Your task to perform on an android device: open app "HBO Max: Stream TV & Movies" Image 0: 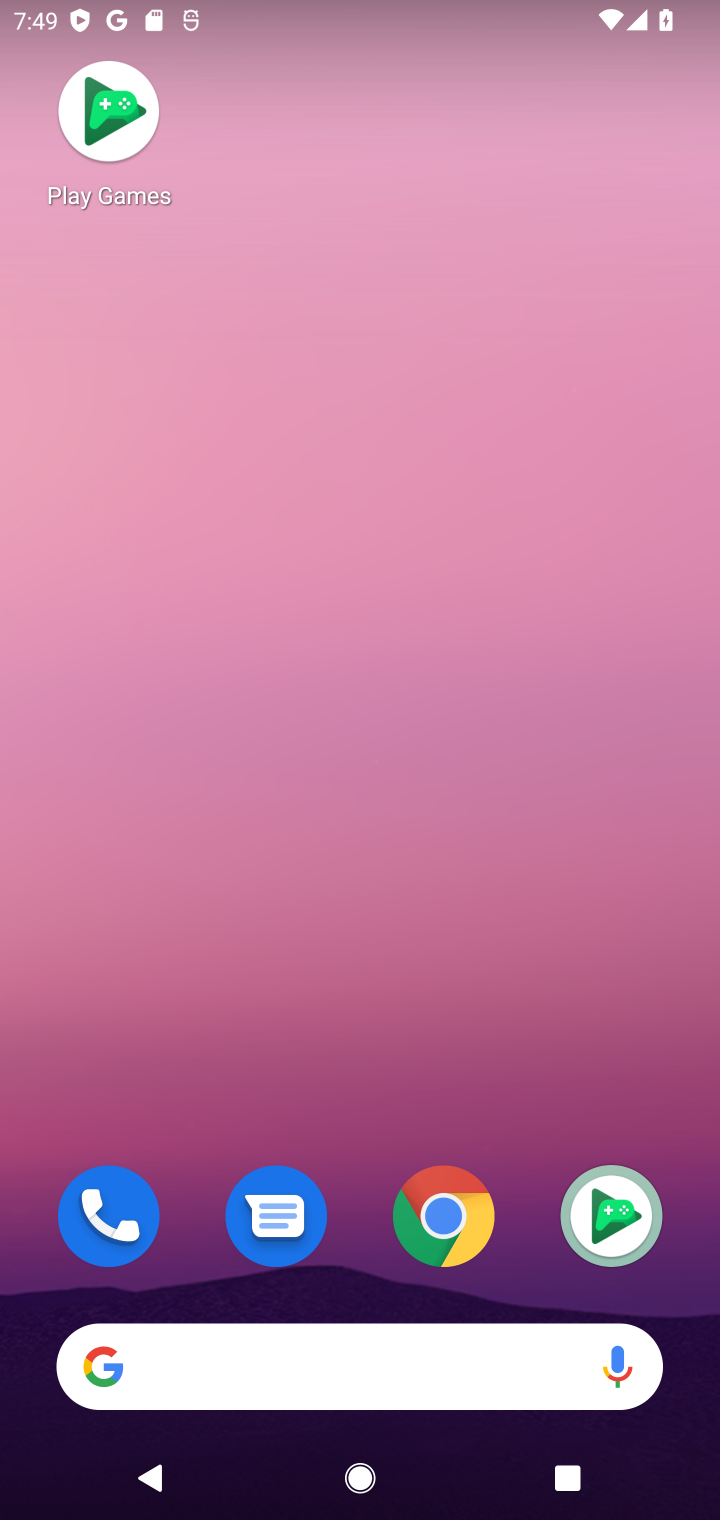
Step 0: drag from (416, 1235) to (497, 239)
Your task to perform on an android device: open app "HBO Max: Stream TV & Movies" Image 1: 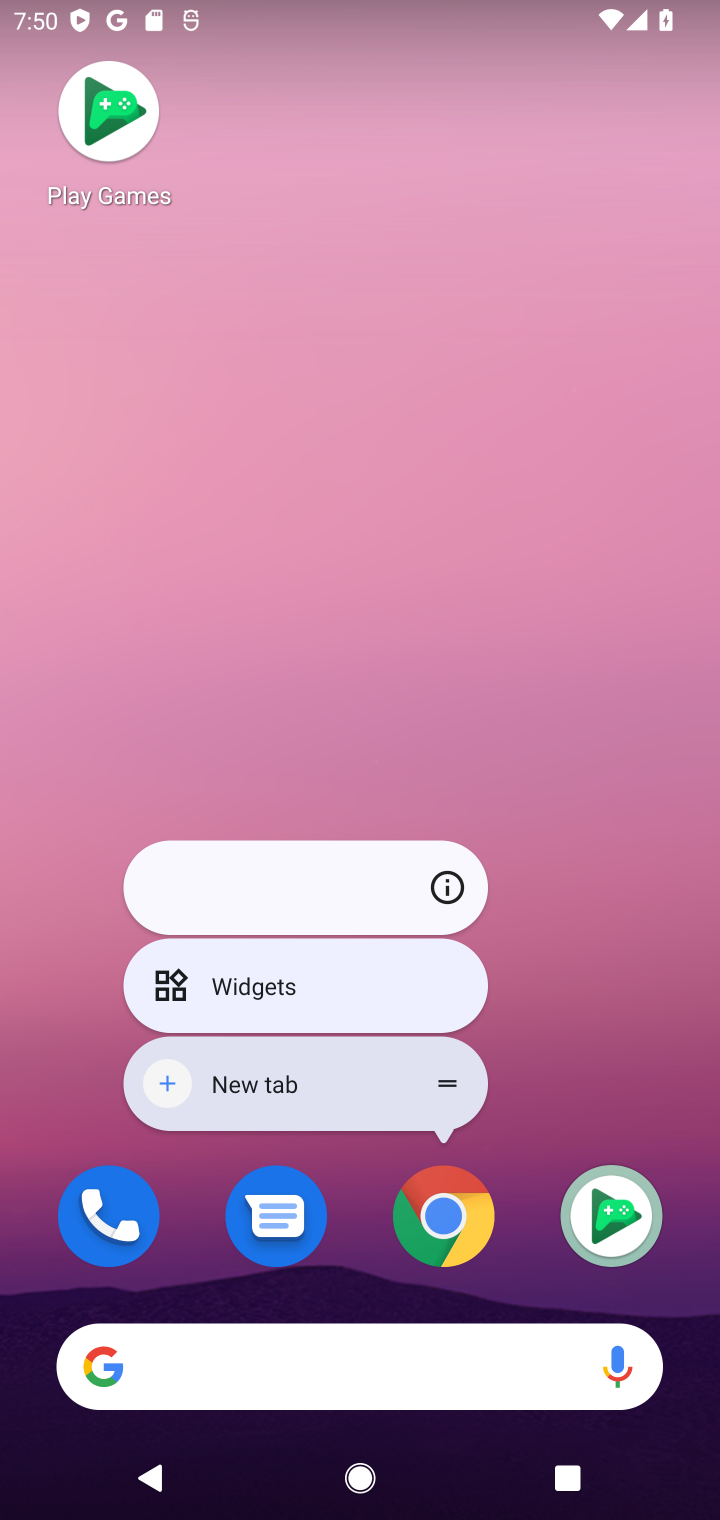
Step 1: click (411, 1286)
Your task to perform on an android device: open app "HBO Max: Stream TV & Movies" Image 2: 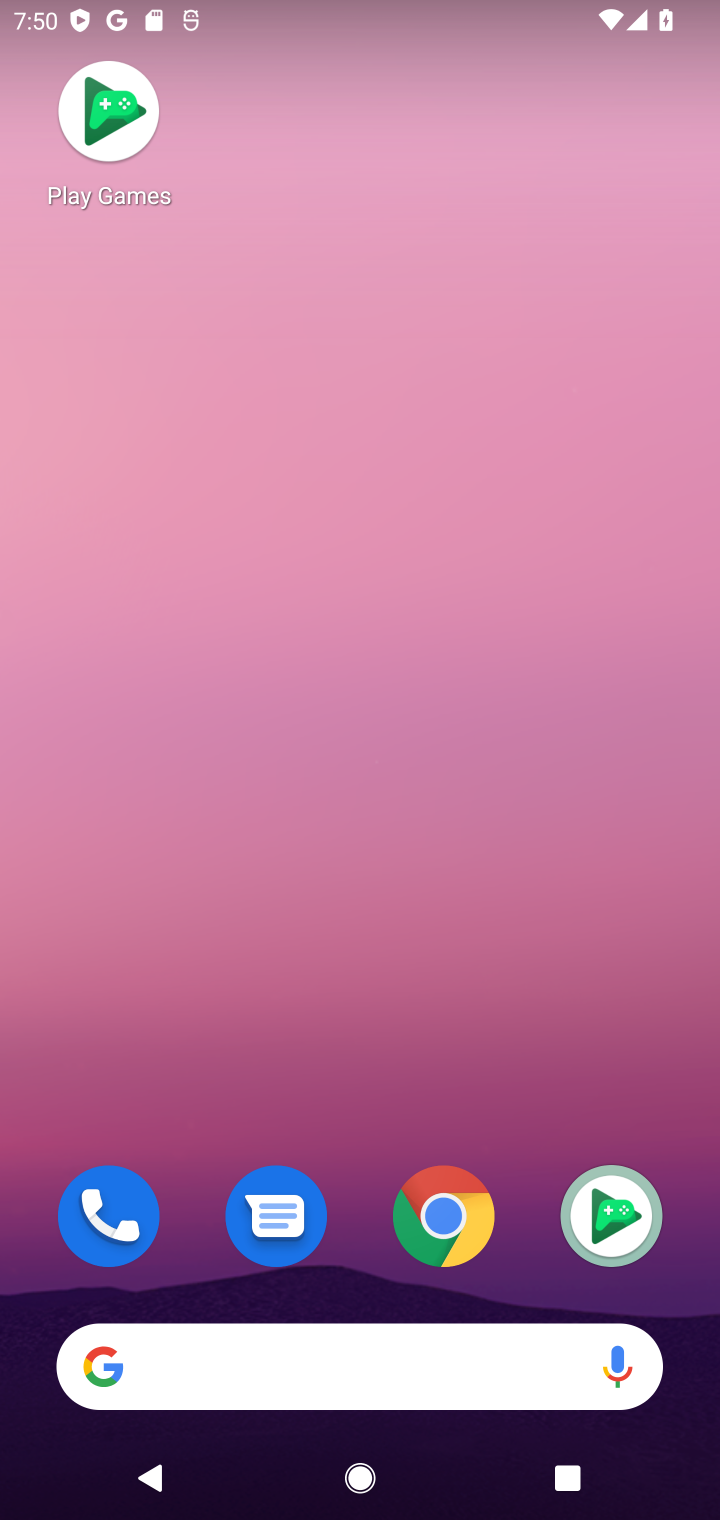
Step 2: drag from (270, 1177) to (164, 38)
Your task to perform on an android device: open app "HBO Max: Stream TV & Movies" Image 3: 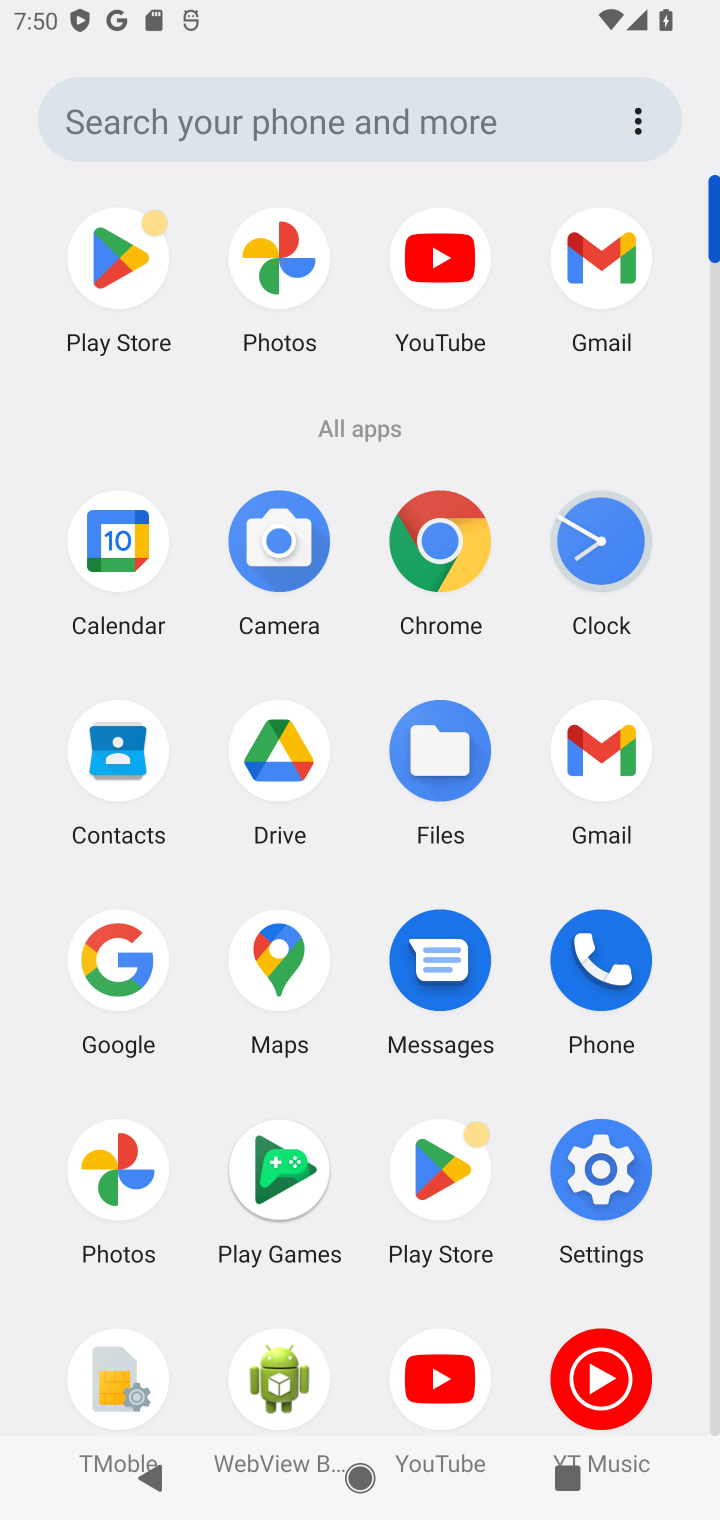
Step 3: click (134, 267)
Your task to perform on an android device: open app "HBO Max: Stream TV & Movies" Image 4: 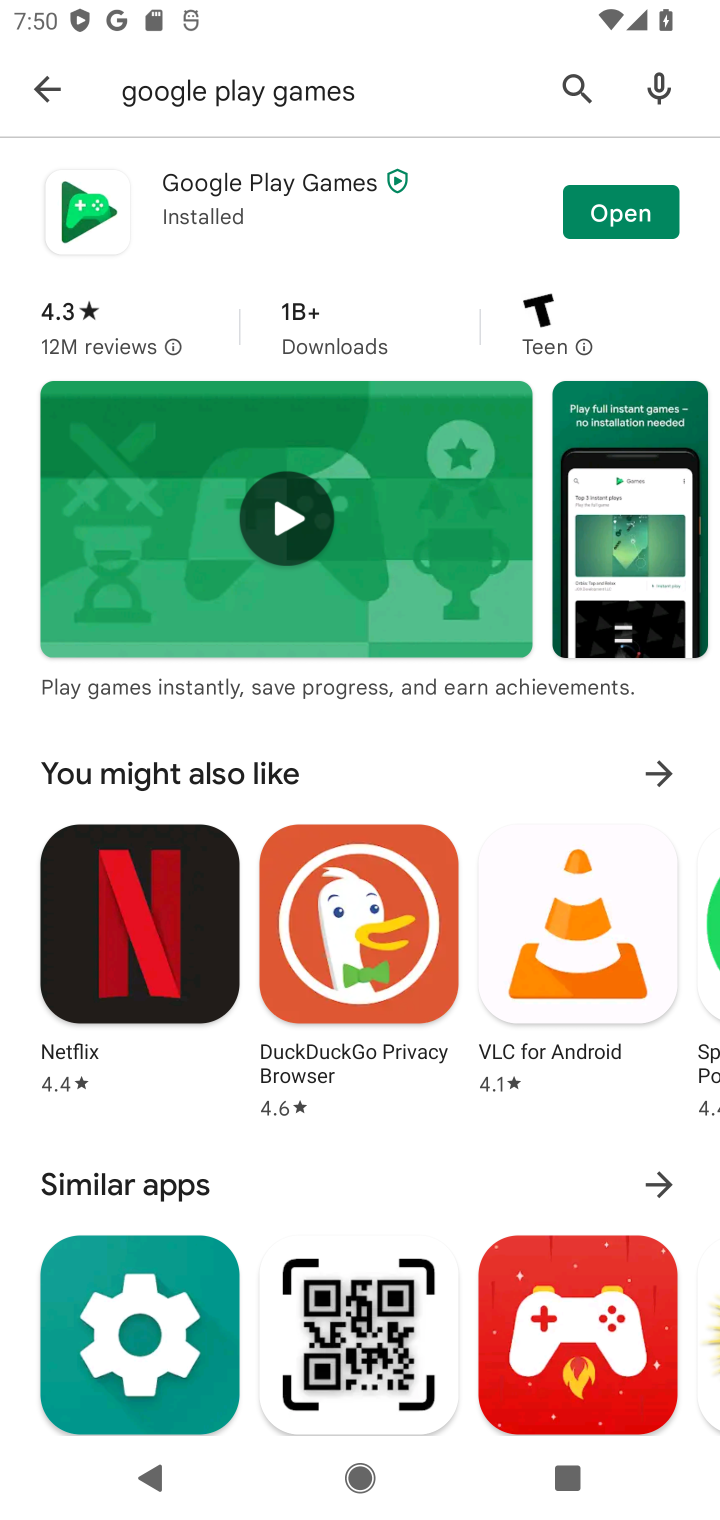
Step 4: click (584, 82)
Your task to perform on an android device: open app "HBO Max: Stream TV & Movies" Image 5: 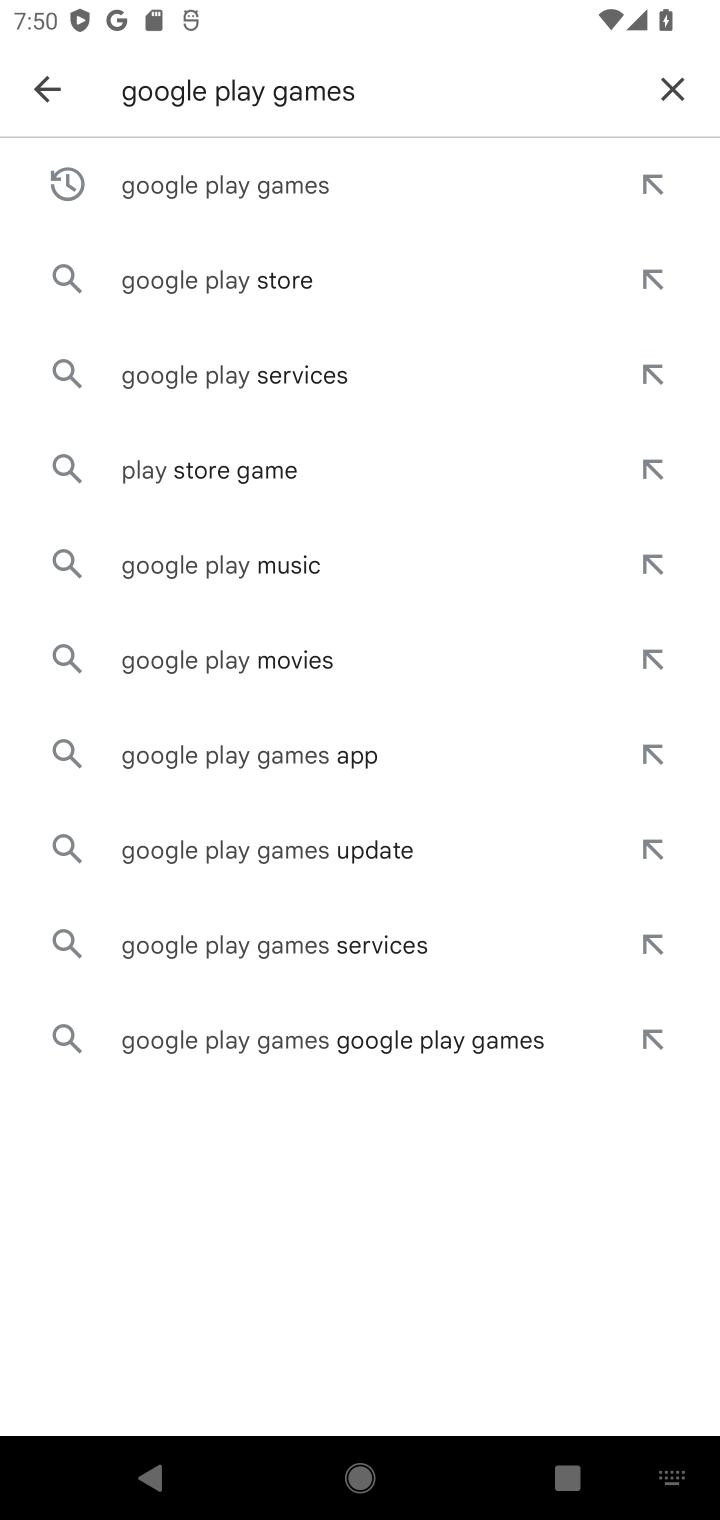
Step 5: click (680, 85)
Your task to perform on an android device: open app "HBO Max: Stream TV & Movies" Image 6: 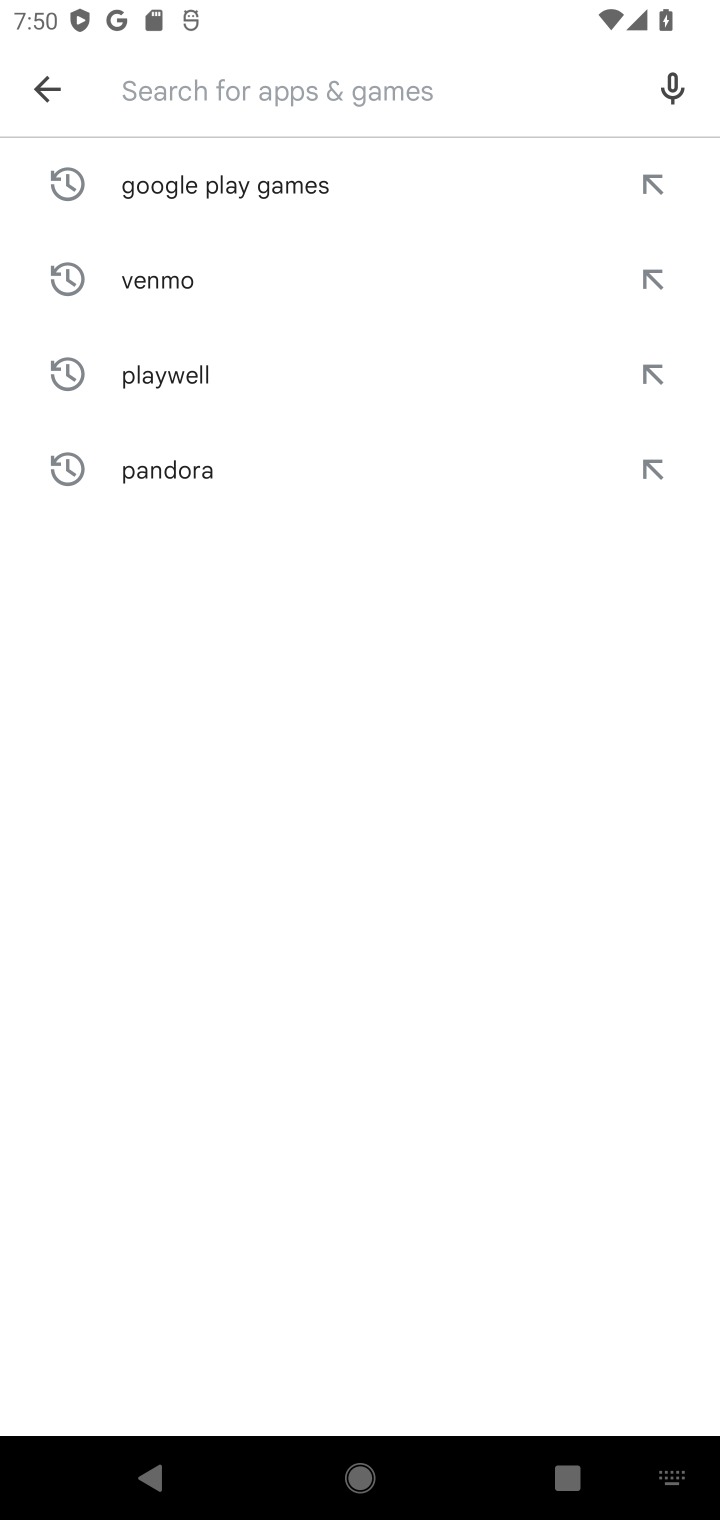
Step 6: click (208, 77)
Your task to perform on an android device: open app "HBO Max: Stream TV & Movies" Image 7: 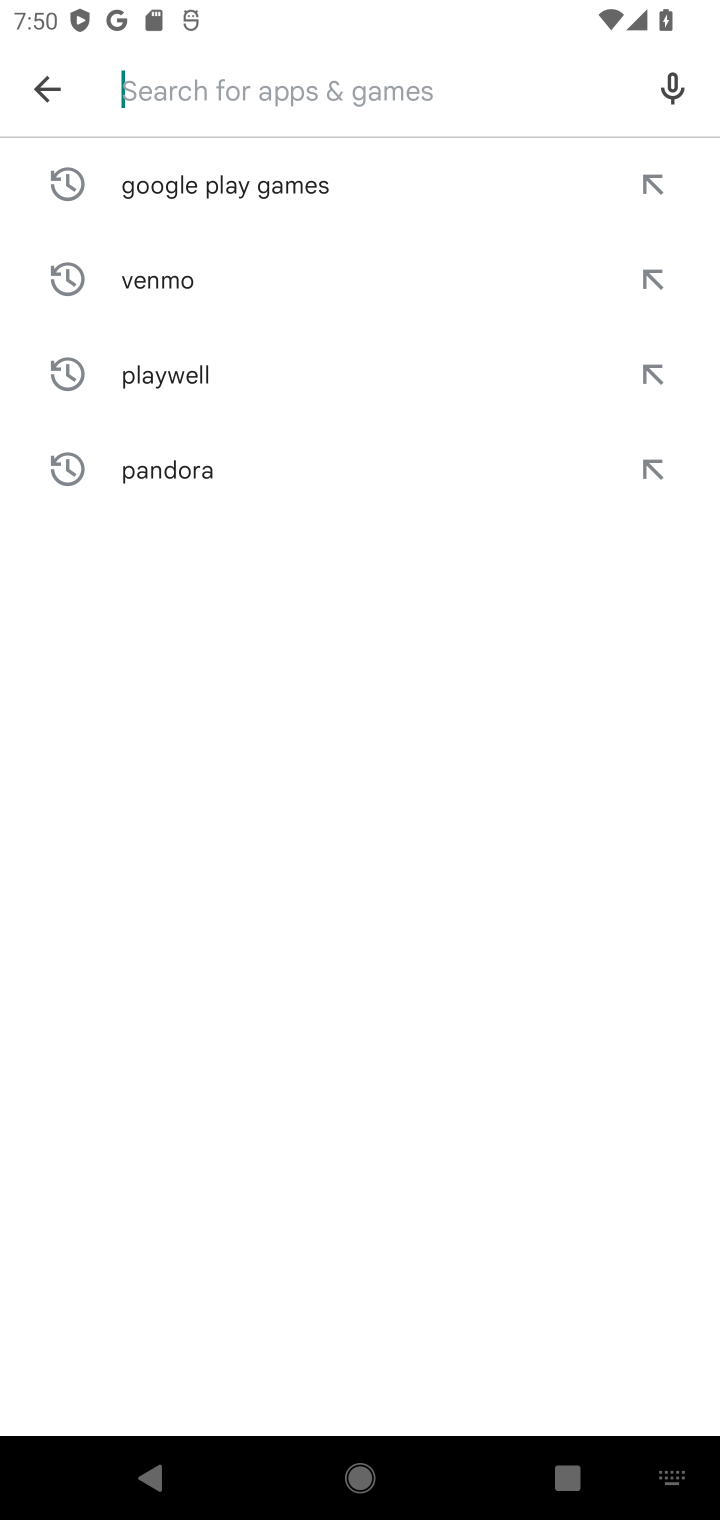
Step 7: type "hbo"
Your task to perform on an android device: open app "HBO Max: Stream TV & Movies" Image 8: 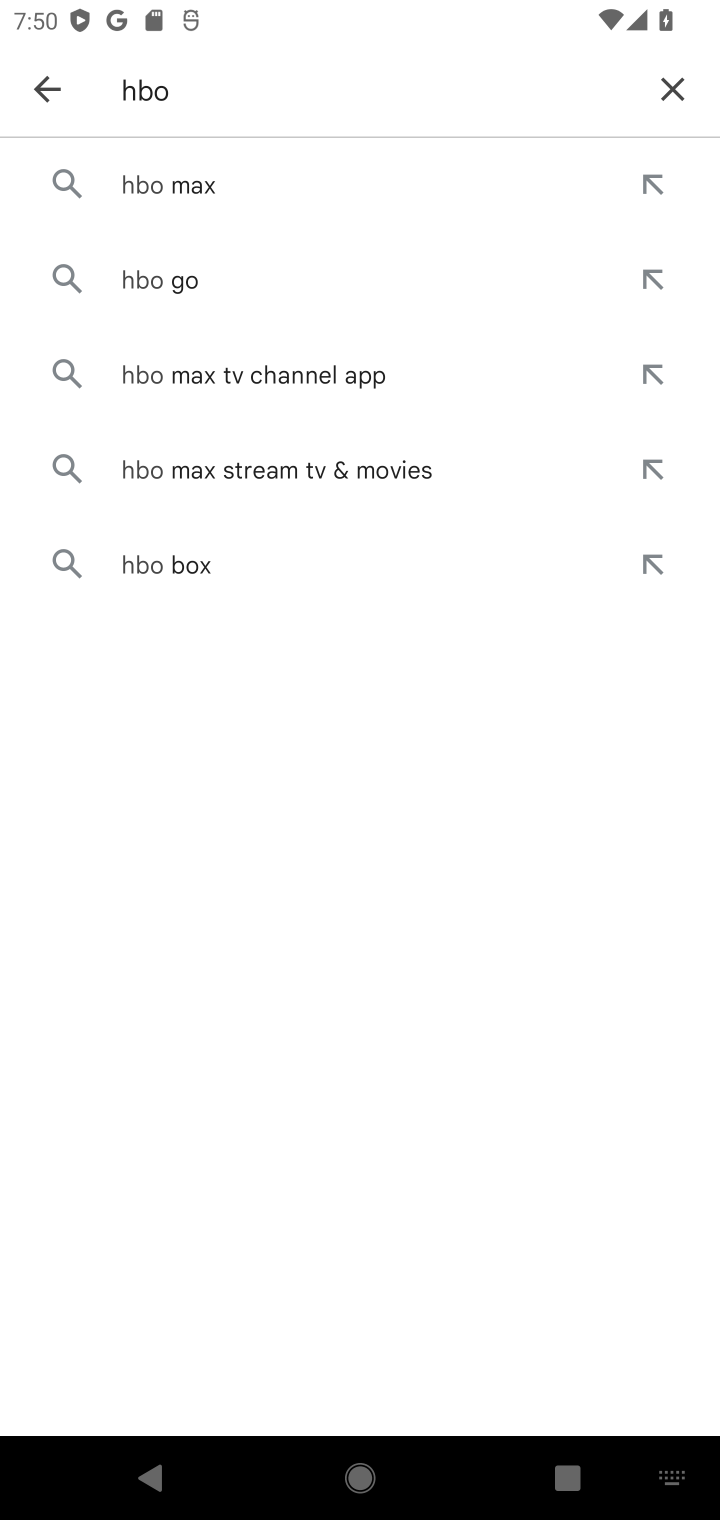
Step 8: click (200, 171)
Your task to perform on an android device: open app "HBO Max: Stream TV & Movies" Image 9: 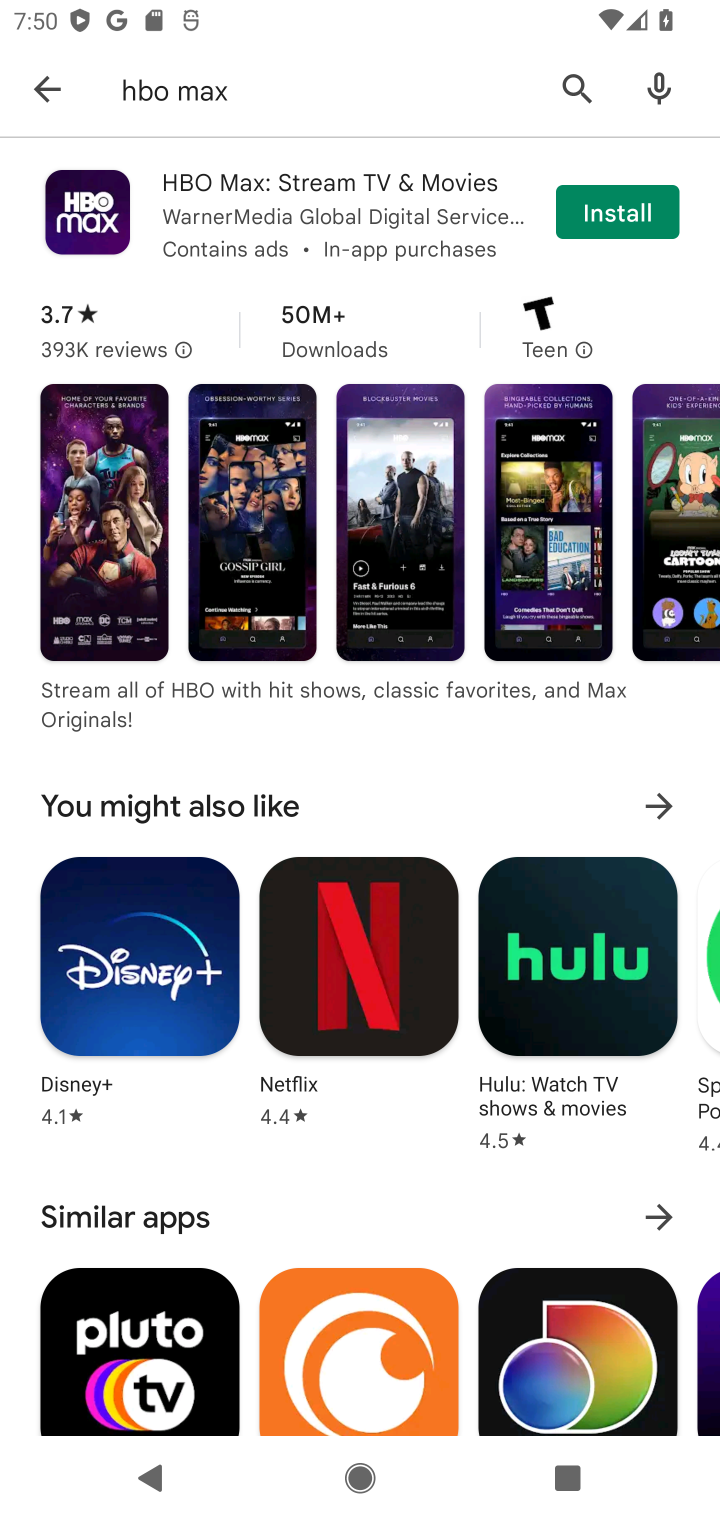
Step 9: task complete